Your task to perform on an android device: set default search engine in the chrome app Image 0: 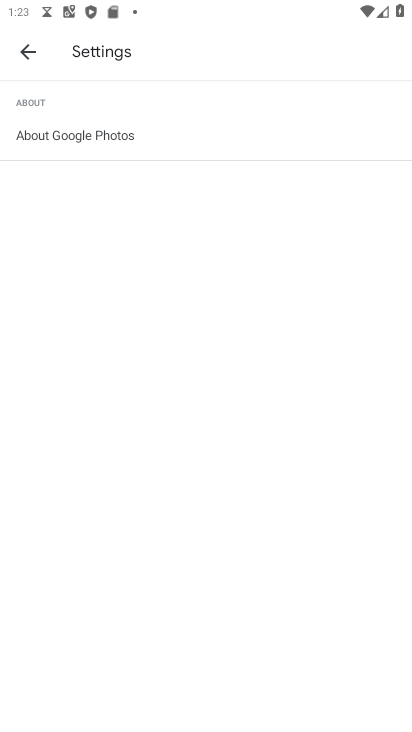
Step 0: press home button
Your task to perform on an android device: set default search engine in the chrome app Image 1: 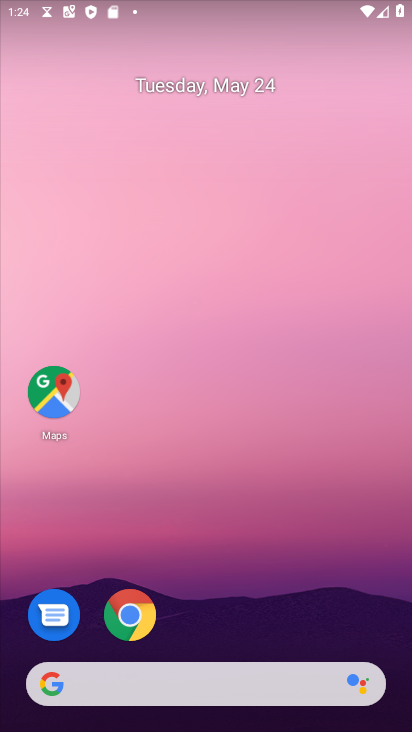
Step 1: click (129, 610)
Your task to perform on an android device: set default search engine in the chrome app Image 2: 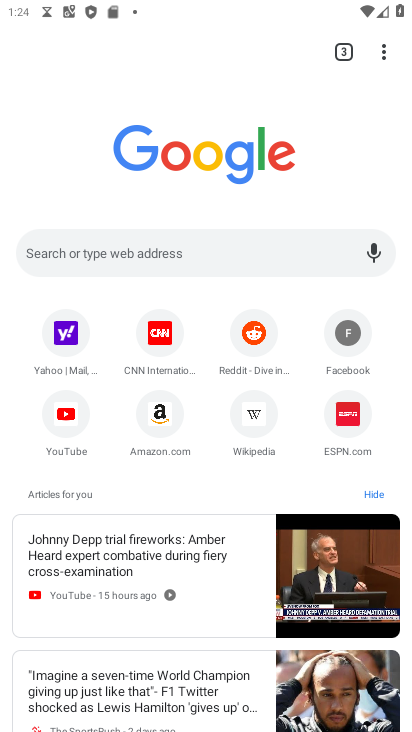
Step 2: click (385, 45)
Your task to perform on an android device: set default search engine in the chrome app Image 3: 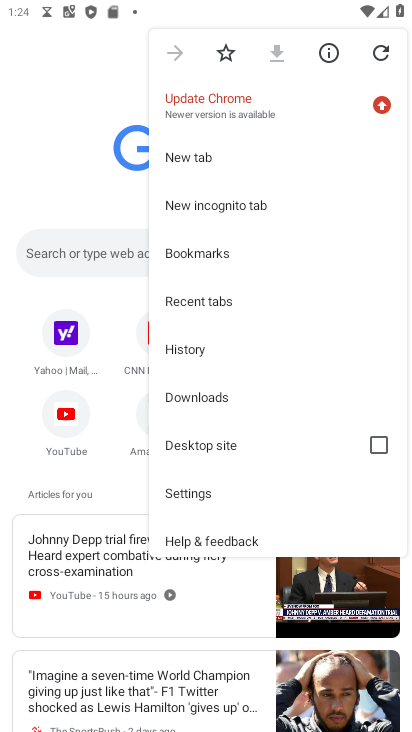
Step 3: click (212, 492)
Your task to perform on an android device: set default search engine in the chrome app Image 4: 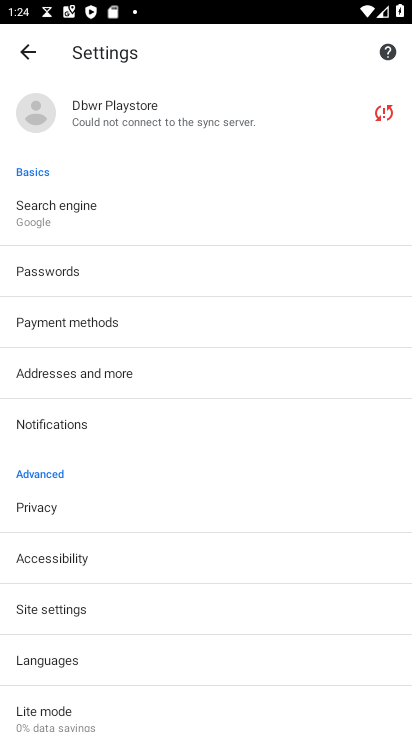
Step 4: click (93, 216)
Your task to perform on an android device: set default search engine in the chrome app Image 5: 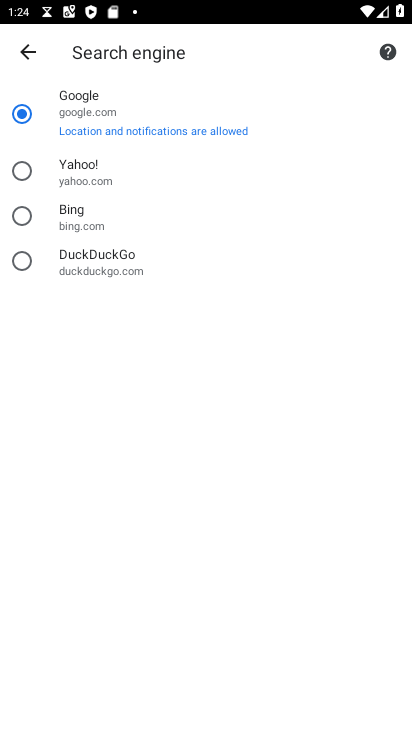
Step 5: click (20, 211)
Your task to perform on an android device: set default search engine in the chrome app Image 6: 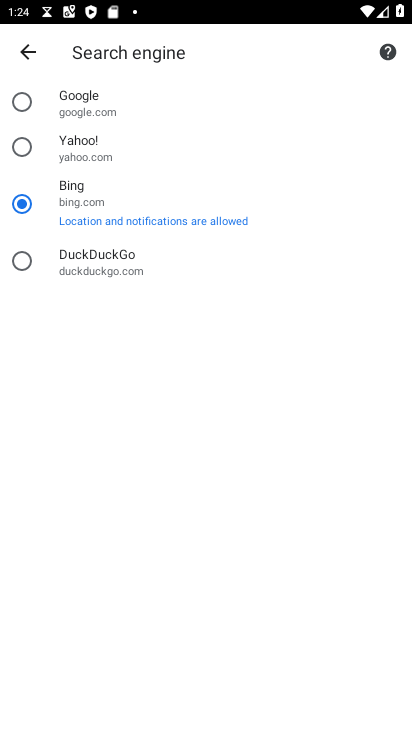
Step 6: task complete